Your task to perform on an android device: Go to battery settings Image 0: 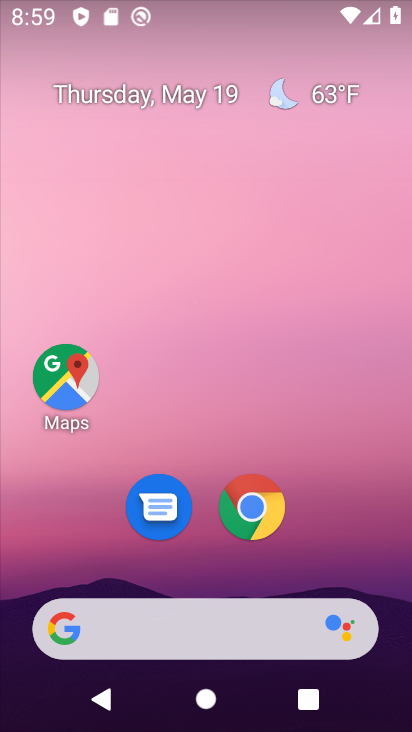
Step 0: drag from (405, 580) to (236, 103)
Your task to perform on an android device: Go to battery settings Image 1: 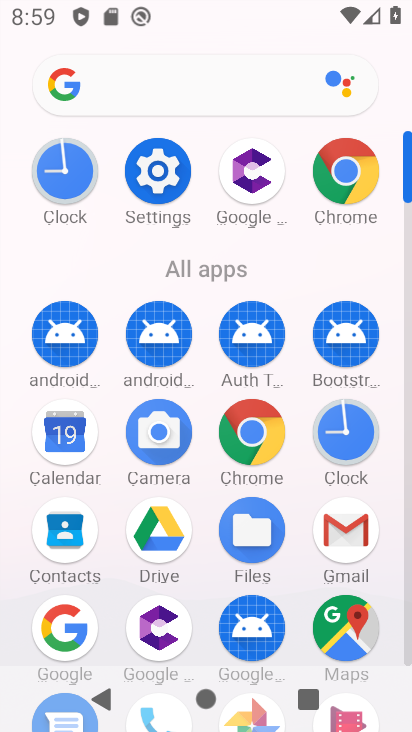
Step 1: click (154, 189)
Your task to perform on an android device: Go to battery settings Image 2: 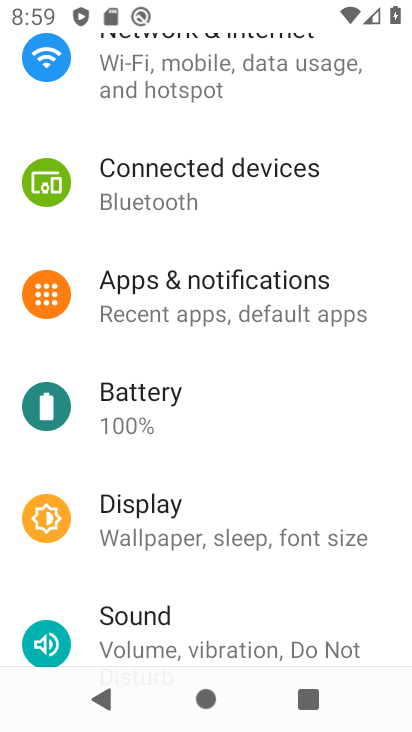
Step 2: click (197, 398)
Your task to perform on an android device: Go to battery settings Image 3: 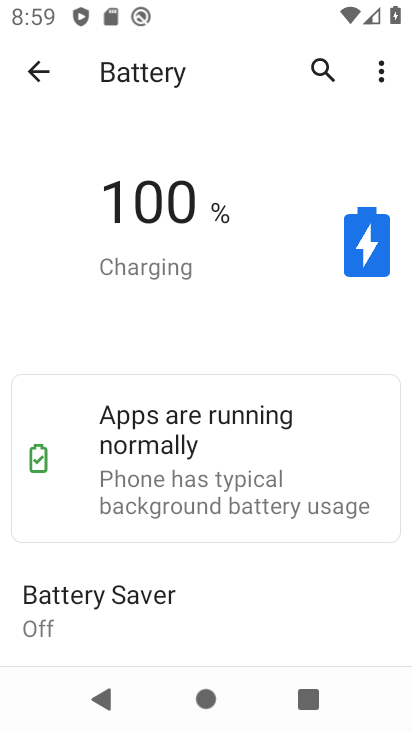
Step 3: task complete